Your task to perform on an android device: Go to Android settings Image 0: 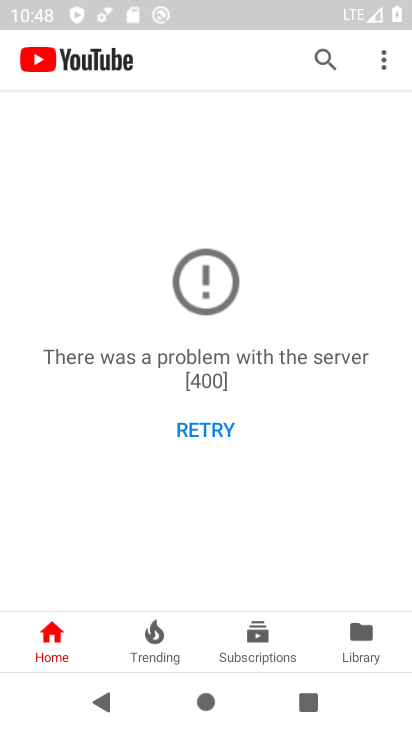
Step 0: press home button
Your task to perform on an android device: Go to Android settings Image 1: 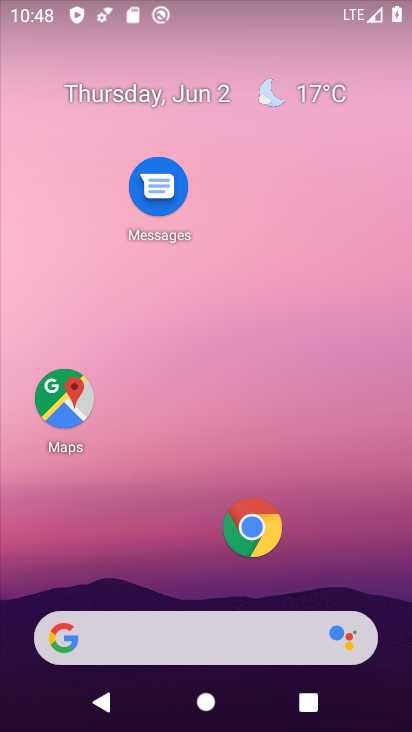
Step 1: drag from (204, 573) to (262, 126)
Your task to perform on an android device: Go to Android settings Image 2: 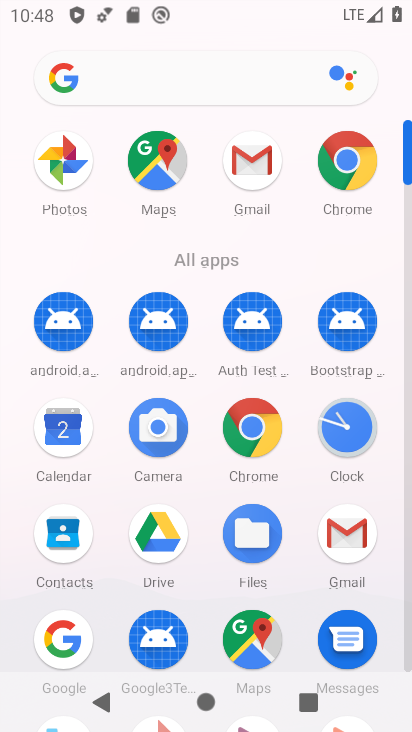
Step 2: drag from (206, 587) to (235, 169)
Your task to perform on an android device: Go to Android settings Image 3: 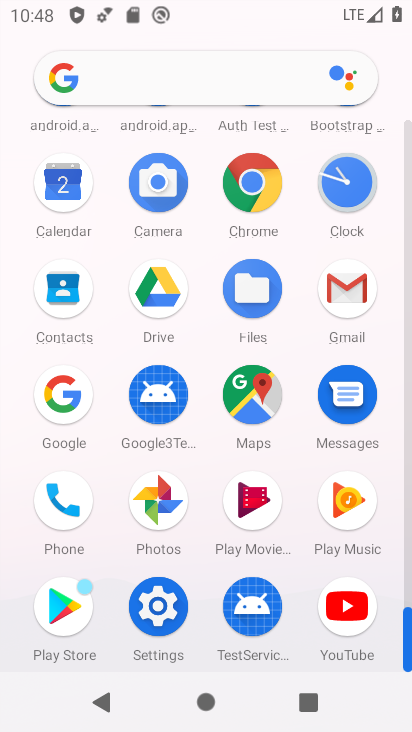
Step 3: click (159, 596)
Your task to perform on an android device: Go to Android settings Image 4: 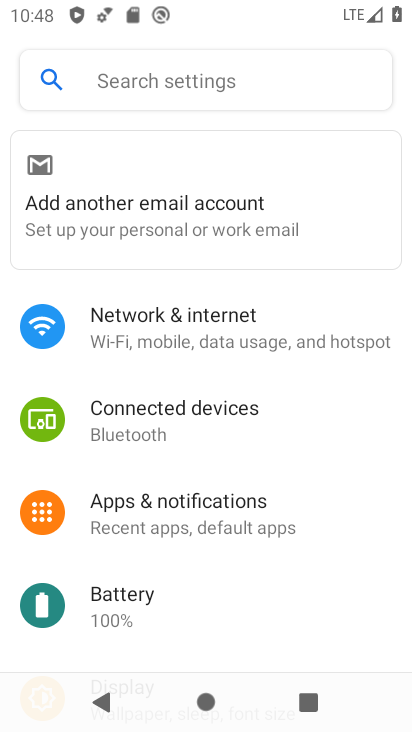
Step 4: drag from (196, 614) to (223, 149)
Your task to perform on an android device: Go to Android settings Image 5: 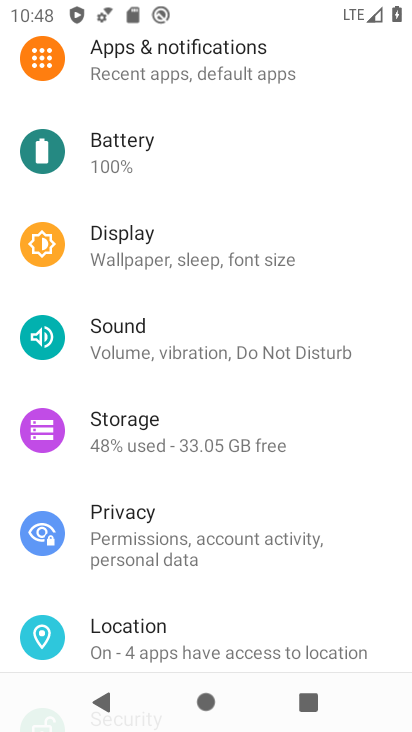
Step 5: drag from (194, 601) to (212, 110)
Your task to perform on an android device: Go to Android settings Image 6: 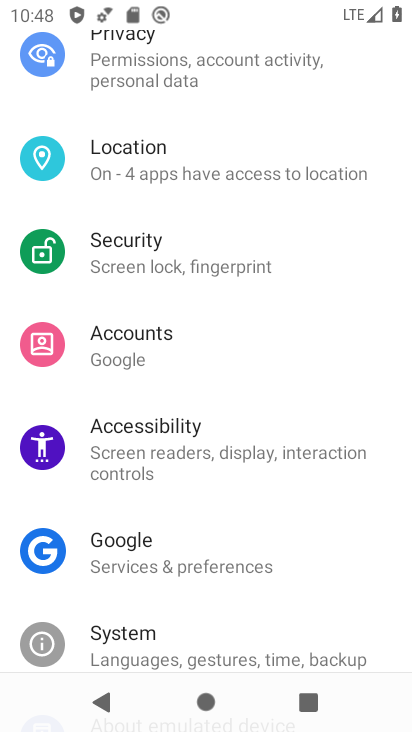
Step 6: drag from (182, 621) to (212, 178)
Your task to perform on an android device: Go to Android settings Image 7: 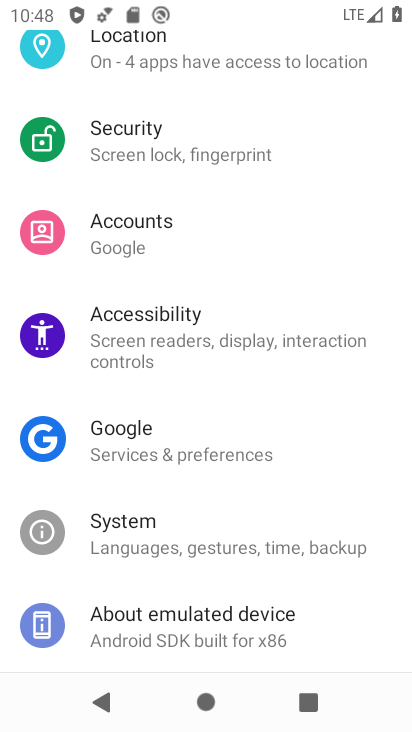
Step 7: click (192, 620)
Your task to perform on an android device: Go to Android settings Image 8: 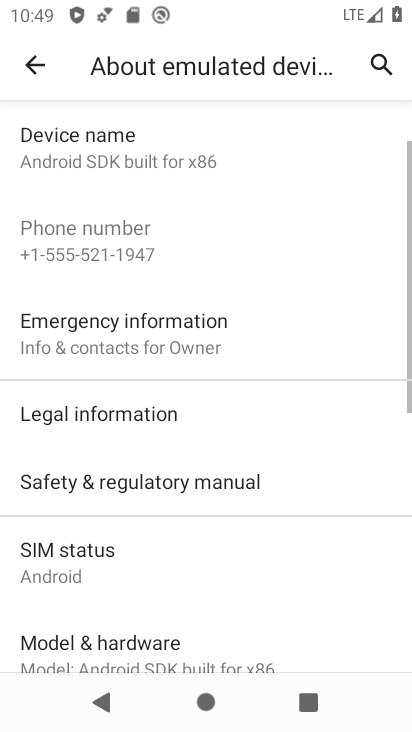
Step 8: drag from (184, 552) to (205, 201)
Your task to perform on an android device: Go to Android settings Image 9: 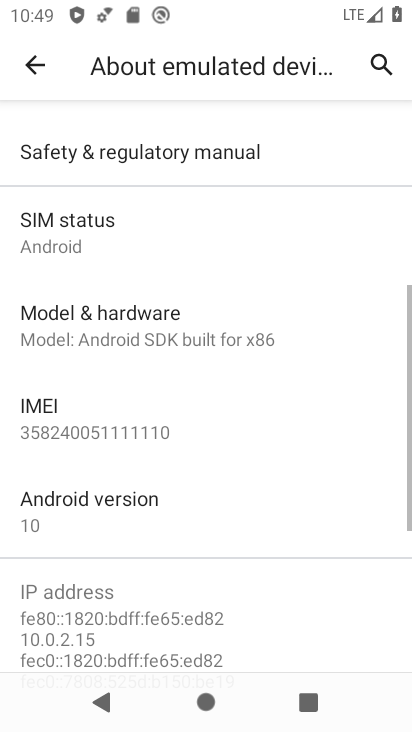
Step 9: click (131, 524)
Your task to perform on an android device: Go to Android settings Image 10: 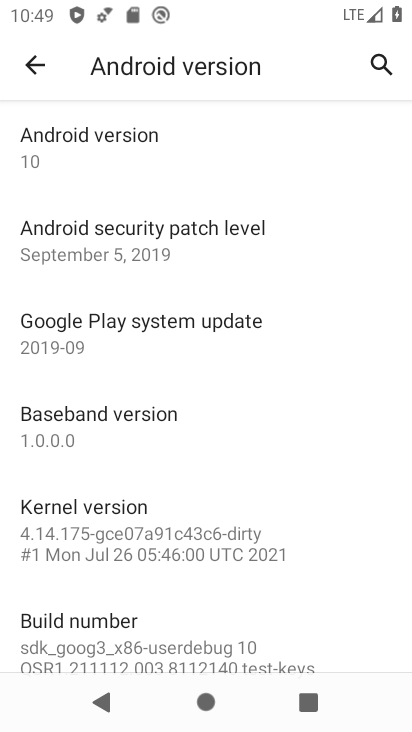
Step 10: task complete